Your task to perform on an android device: Go to settings Image 0: 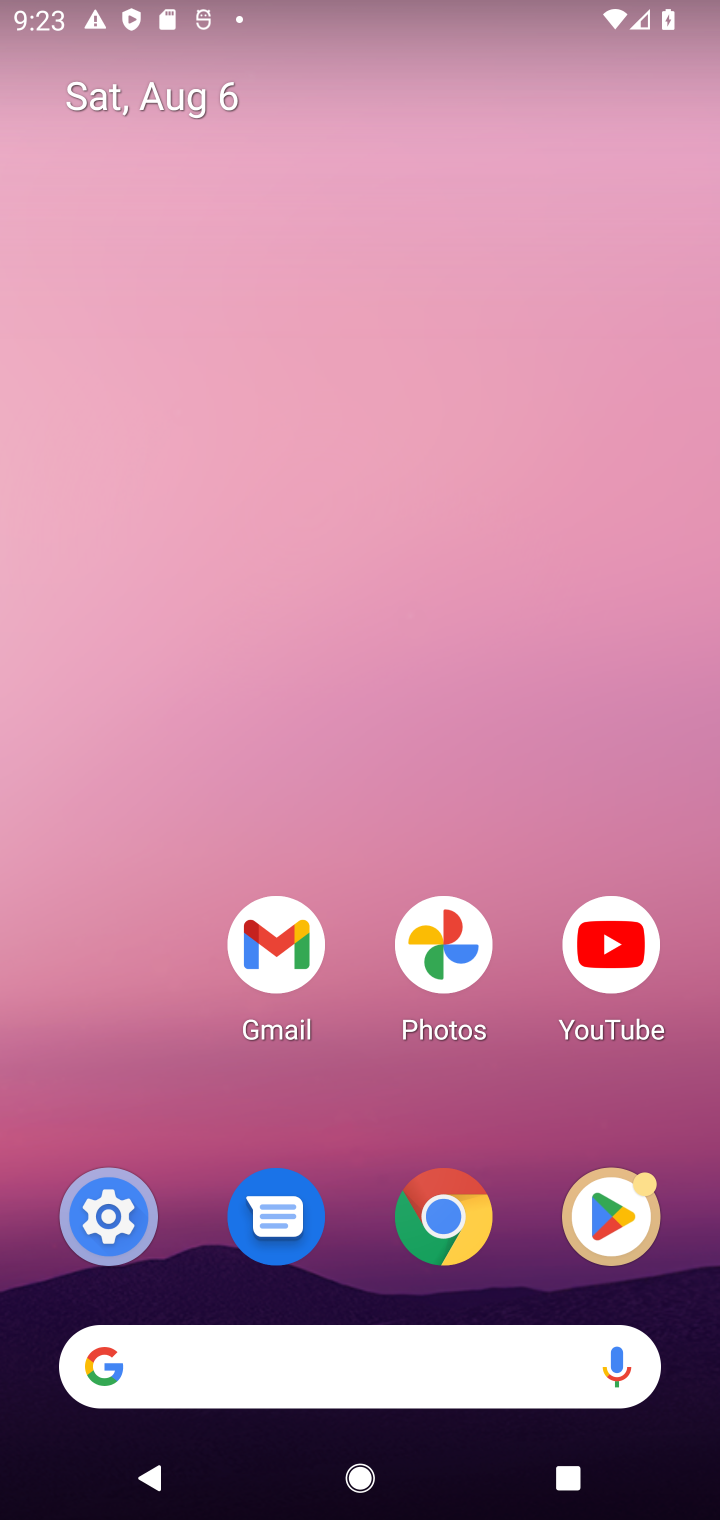
Step 0: drag from (424, 1338) to (421, 272)
Your task to perform on an android device: Go to settings Image 1: 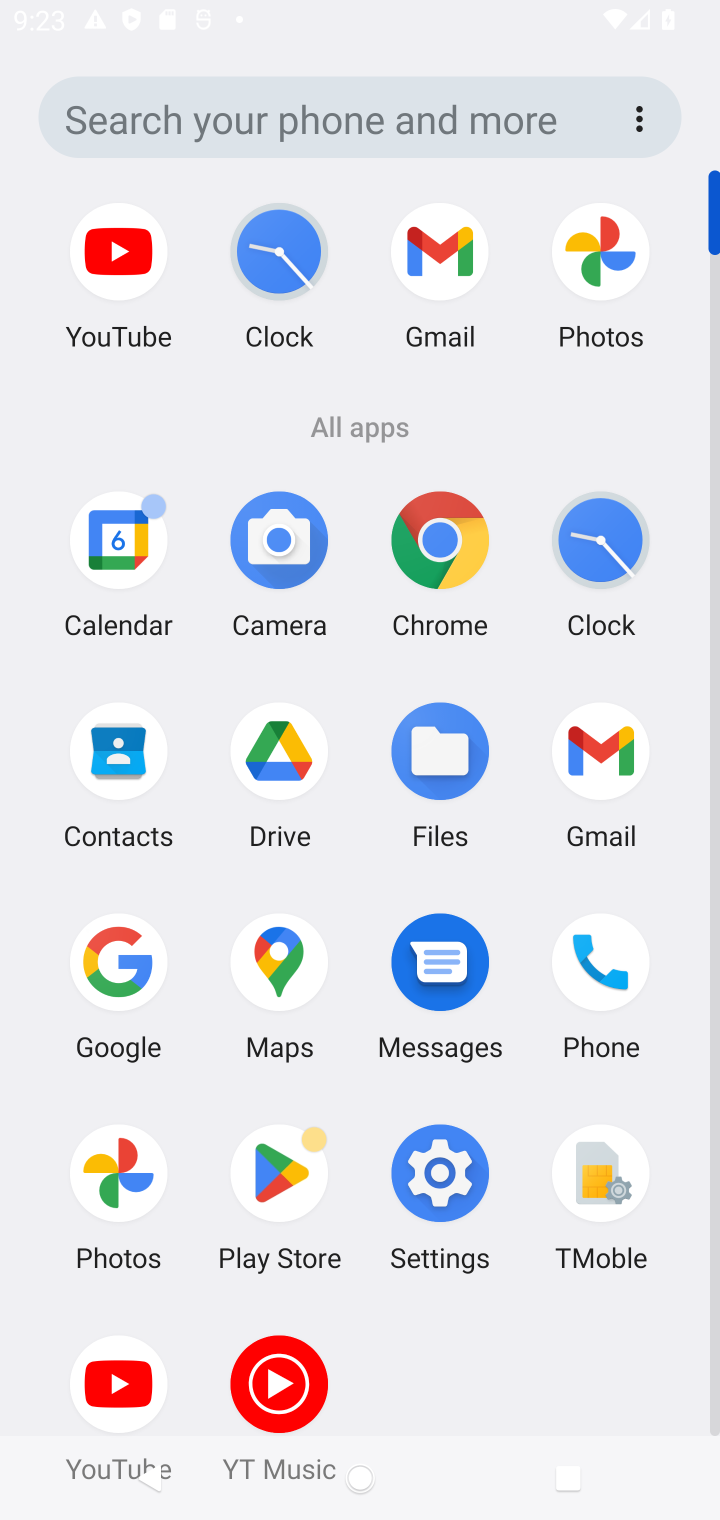
Step 1: click (106, 1221)
Your task to perform on an android device: Go to settings Image 2: 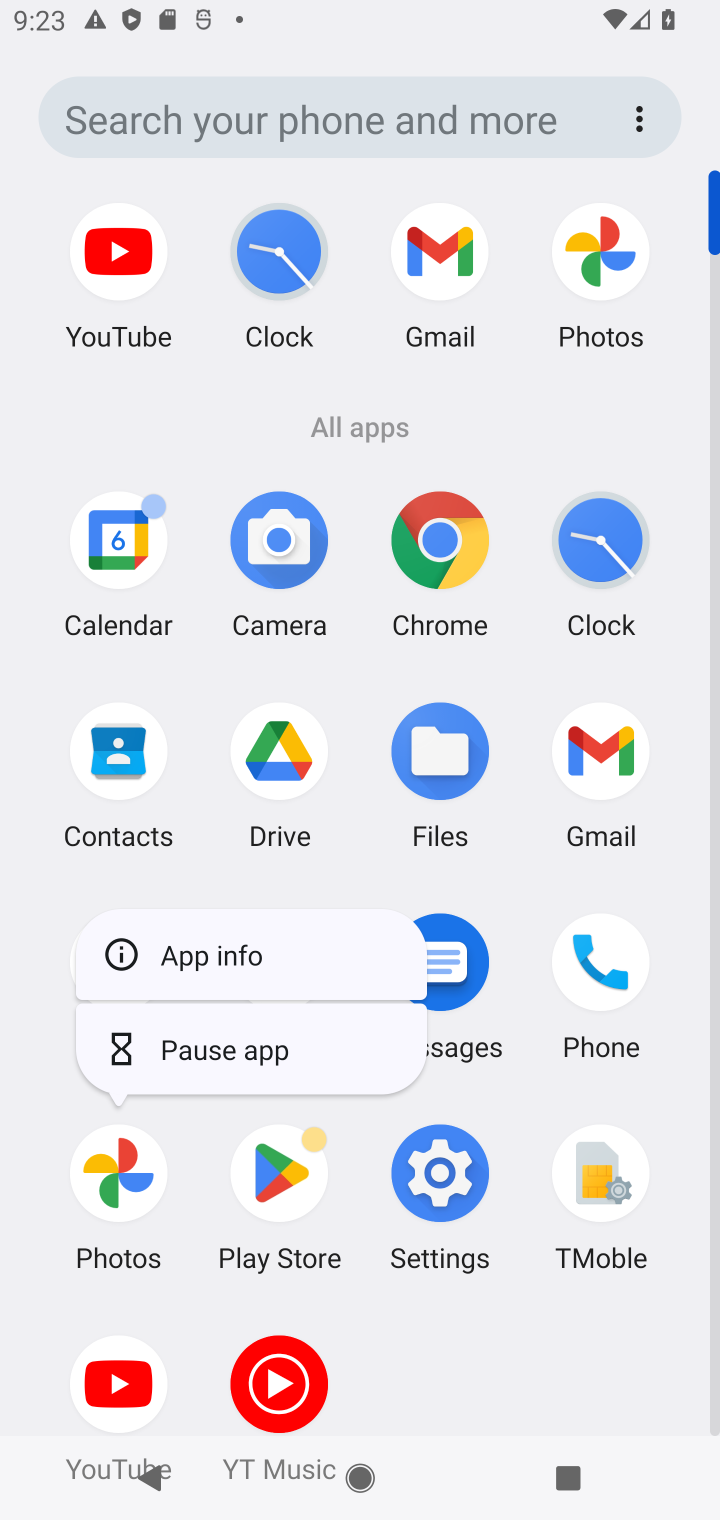
Step 2: click (442, 1179)
Your task to perform on an android device: Go to settings Image 3: 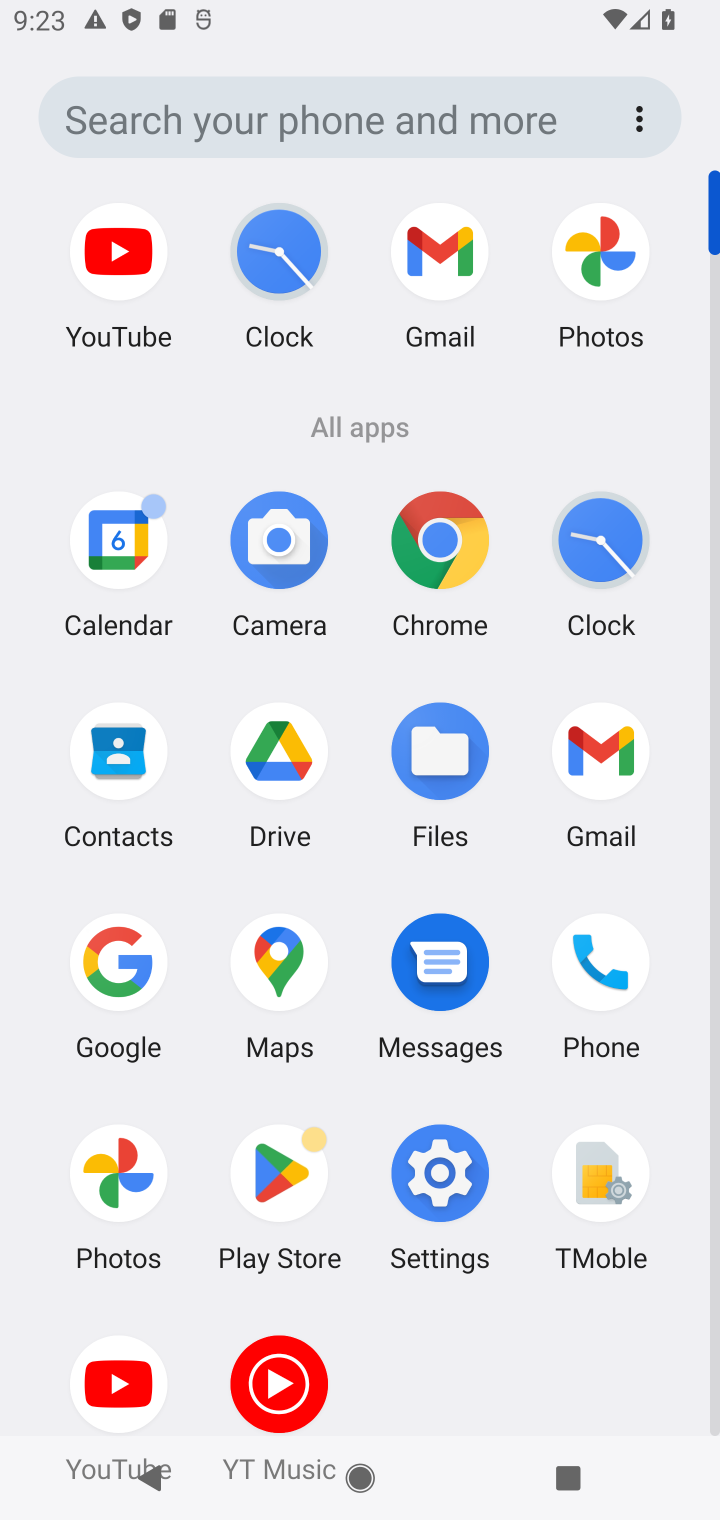
Step 3: click (405, 1140)
Your task to perform on an android device: Go to settings Image 4: 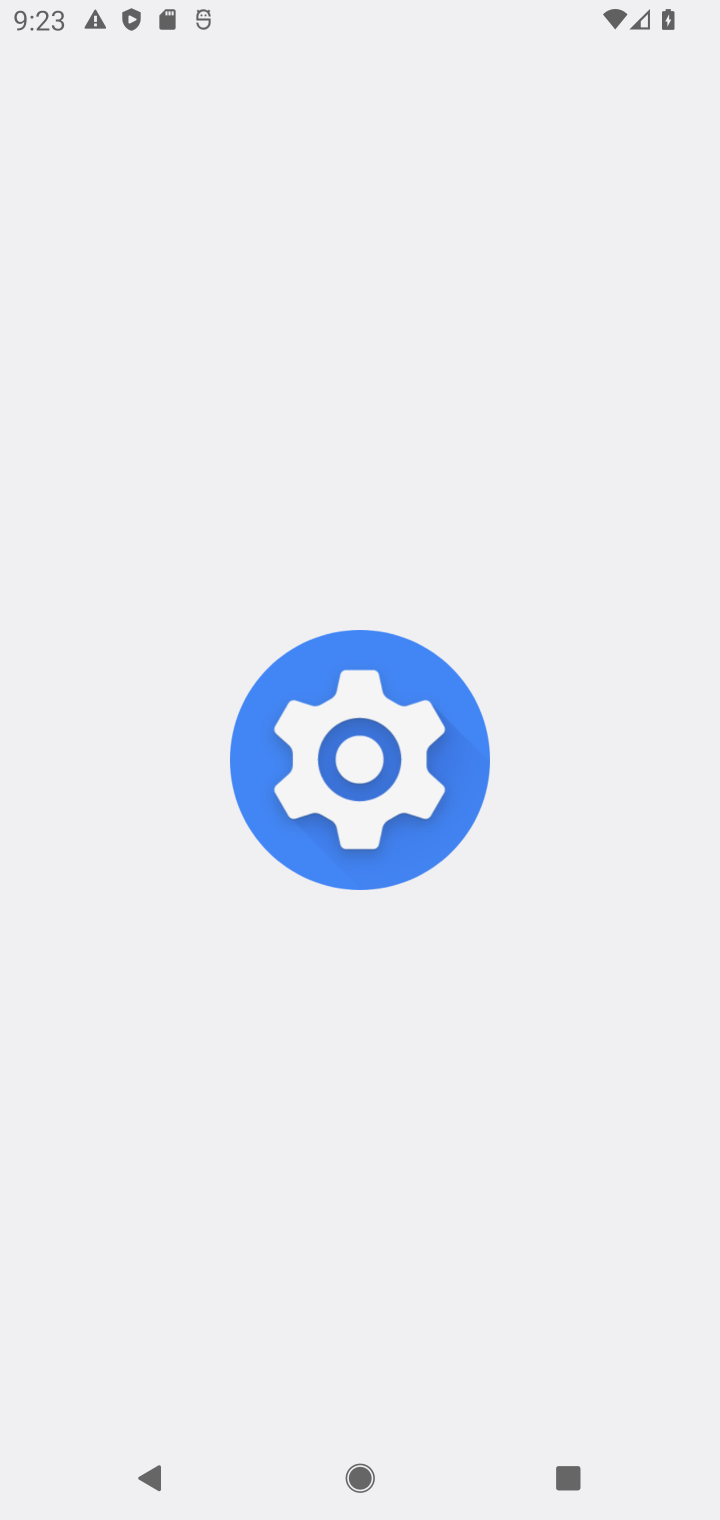
Step 4: click (470, 1171)
Your task to perform on an android device: Go to settings Image 5: 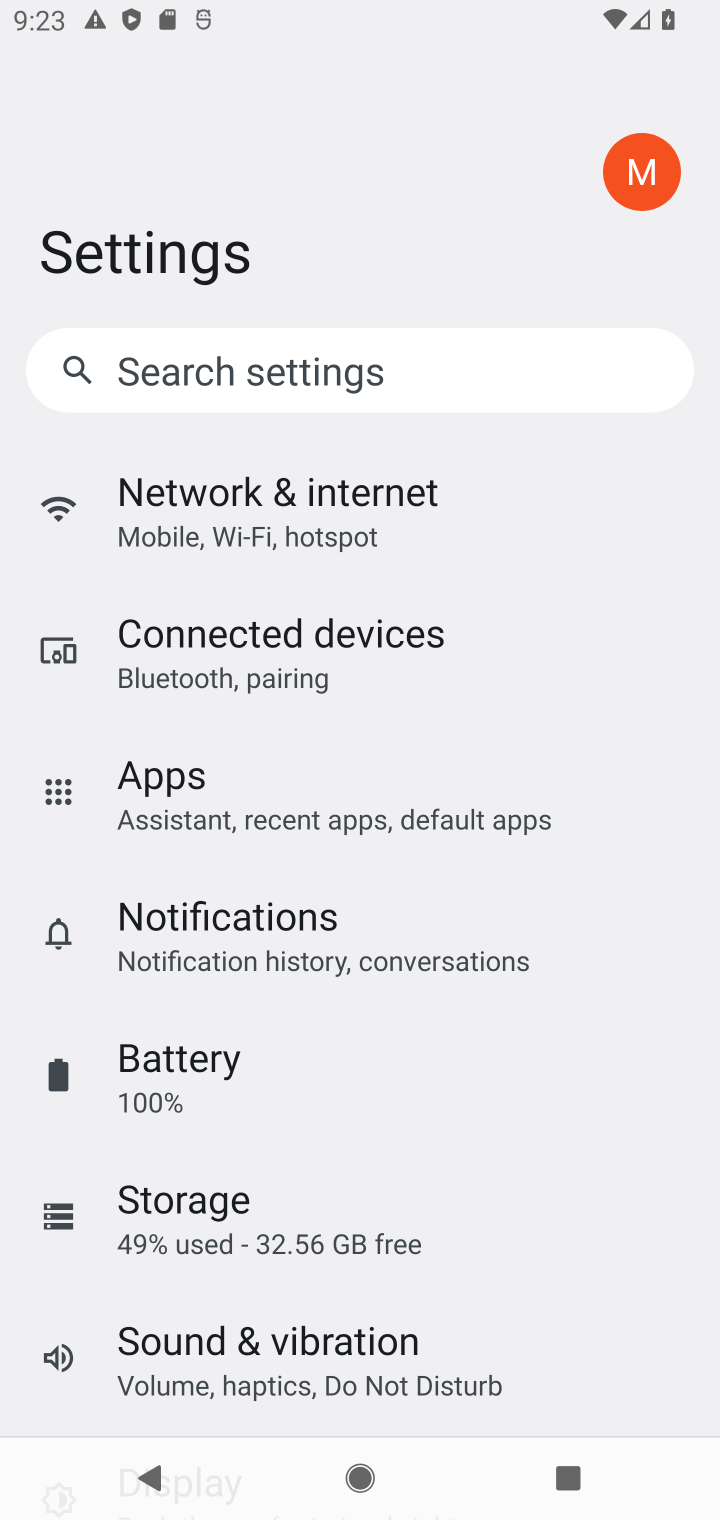
Step 5: task complete